Your task to perform on an android device: turn on bluetooth scan Image 0: 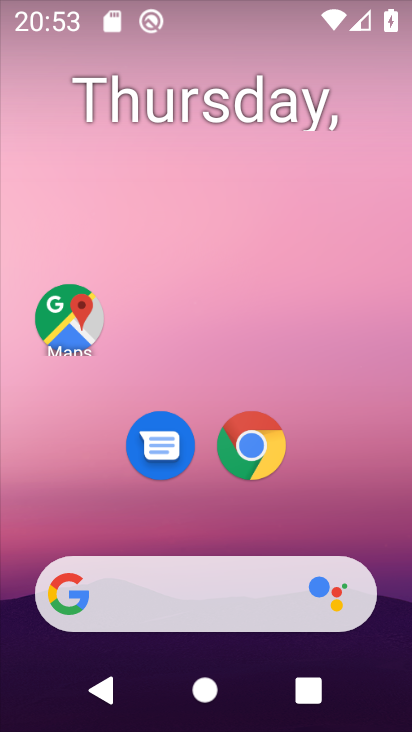
Step 0: drag from (226, 428) to (172, 114)
Your task to perform on an android device: turn on bluetooth scan Image 1: 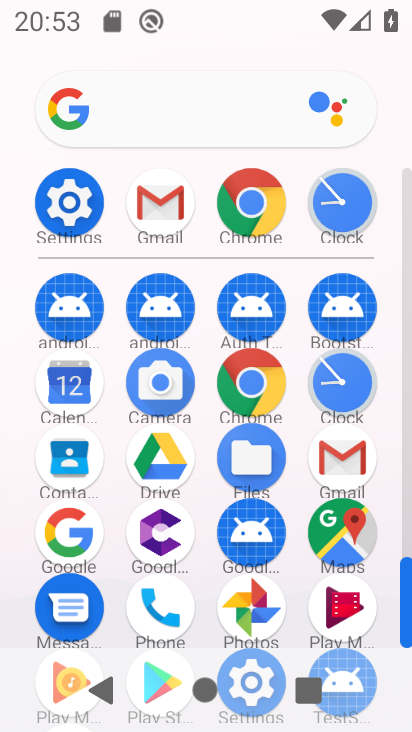
Step 1: click (86, 203)
Your task to perform on an android device: turn on bluetooth scan Image 2: 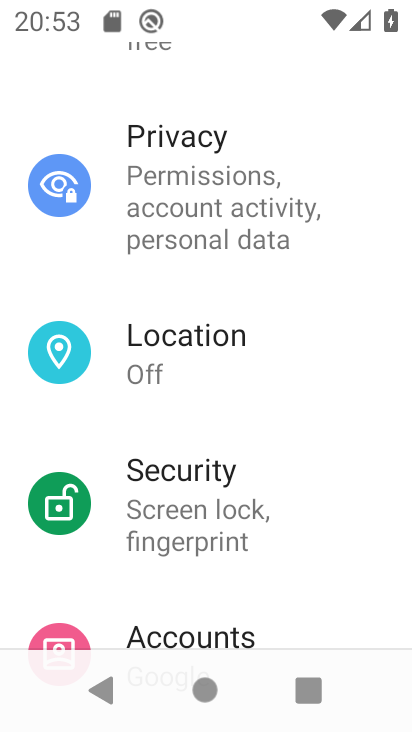
Step 2: click (178, 357)
Your task to perform on an android device: turn on bluetooth scan Image 3: 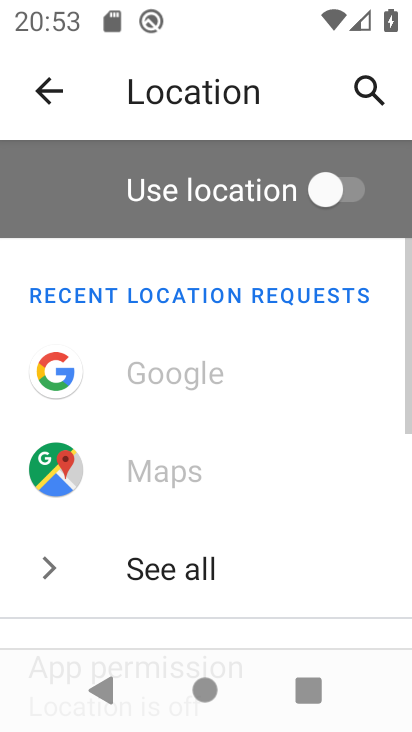
Step 3: drag from (256, 553) to (214, 151)
Your task to perform on an android device: turn on bluetooth scan Image 4: 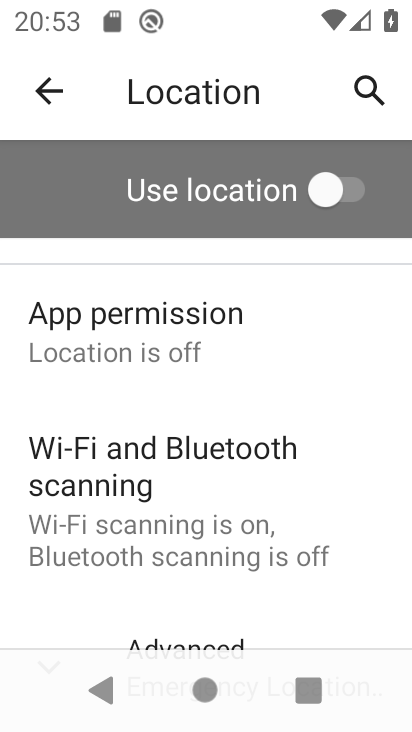
Step 4: click (194, 495)
Your task to perform on an android device: turn on bluetooth scan Image 5: 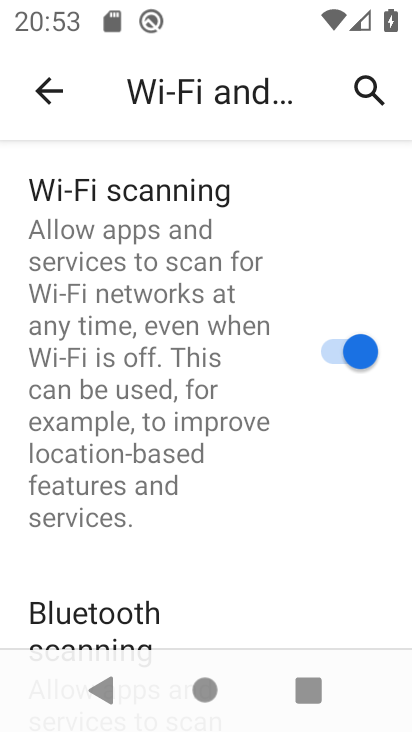
Step 5: drag from (178, 615) to (165, 319)
Your task to perform on an android device: turn on bluetooth scan Image 6: 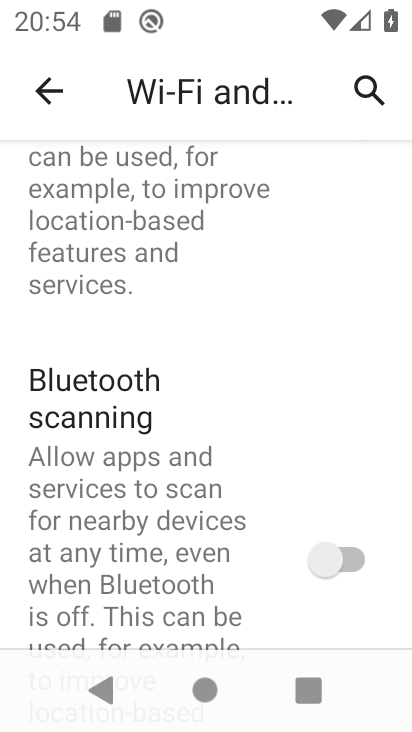
Step 6: click (325, 558)
Your task to perform on an android device: turn on bluetooth scan Image 7: 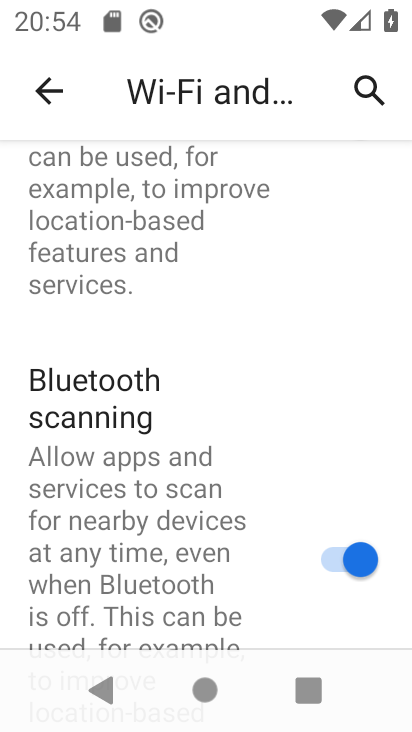
Step 7: task complete